Your task to perform on an android device: turn vacation reply on in the gmail app Image 0: 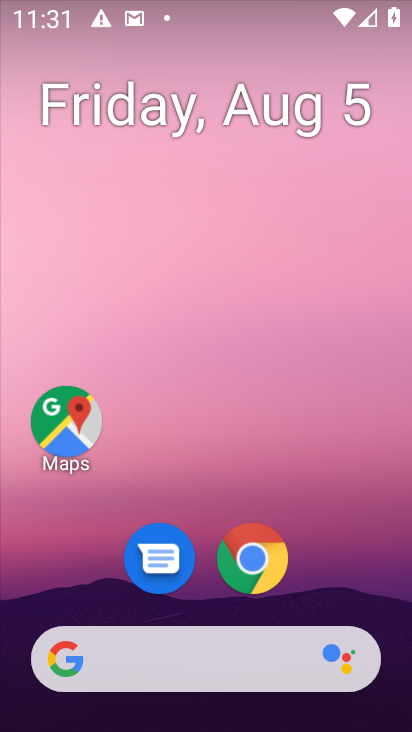
Step 0: press home button
Your task to perform on an android device: turn vacation reply on in the gmail app Image 1: 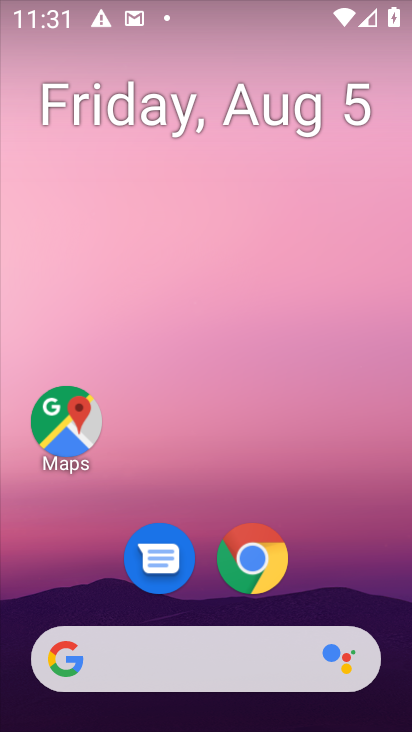
Step 1: drag from (344, 547) to (365, 203)
Your task to perform on an android device: turn vacation reply on in the gmail app Image 2: 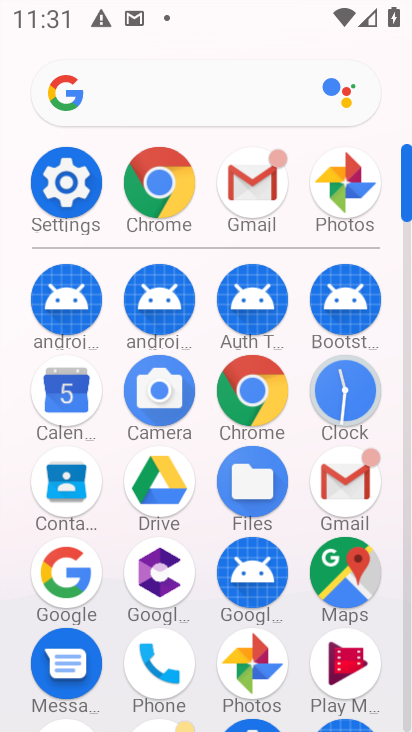
Step 2: click (335, 488)
Your task to perform on an android device: turn vacation reply on in the gmail app Image 3: 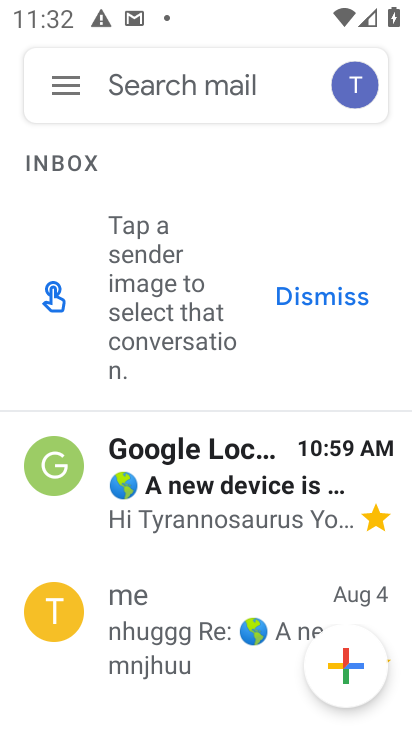
Step 3: click (72, 83)
Your task to perform on an android device: turn vacation reply on in the gmail app Image 4: 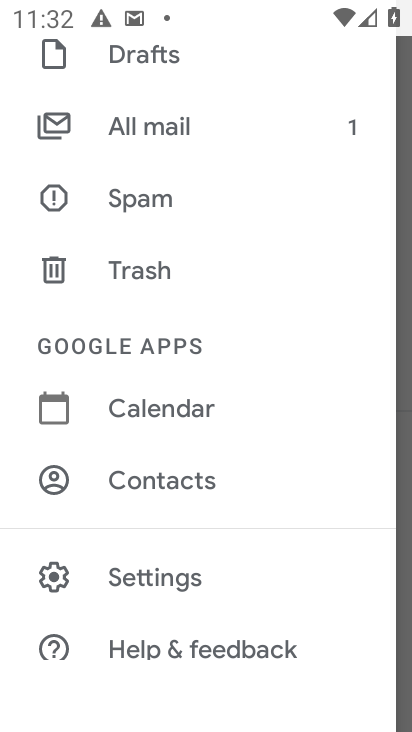
Step 4: click (192, 587)
Your task to perform on an android device: turn vacation reply on in the gmail app Image 5: 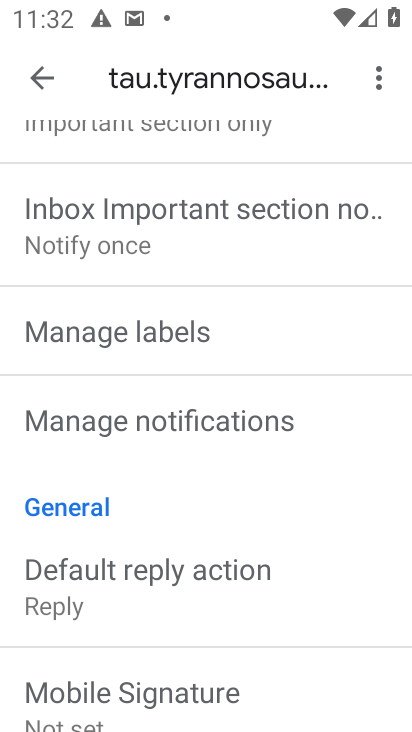
Step 5: drag from (291, 558) to (324, 416)
Your task to perform on an android device: turn vacation reply on in the gmail app Image 6: 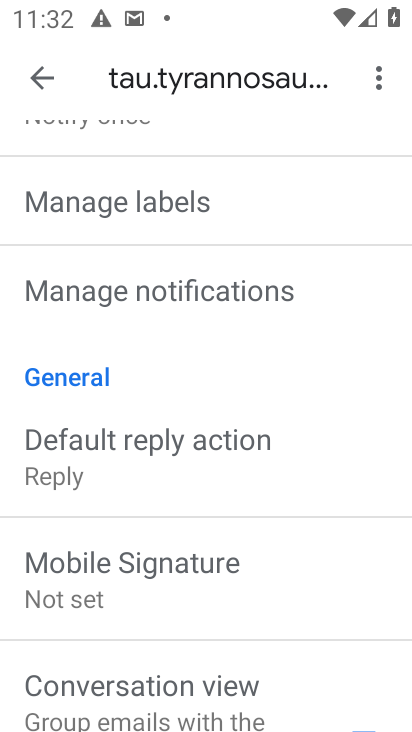
Step 6: drag from (333, 475) to (338, 368)
Your task to perform on an android device: turn vacation reply on in the gmail app Image 7: 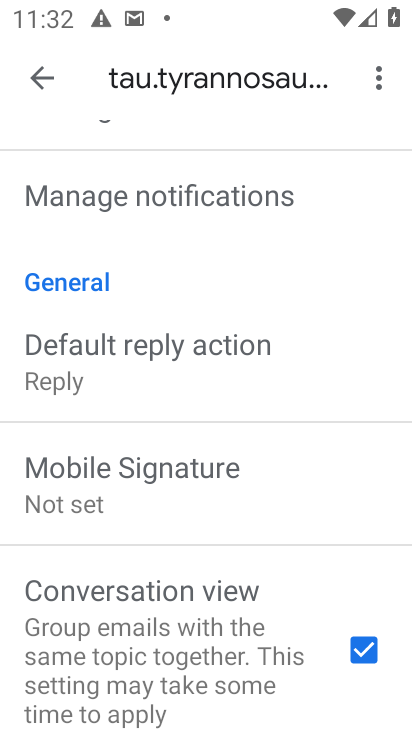
Step 7: drag from (303, 517) to (321, 366)
Your task to perform on an android device: turn vacation reply on in the gmail app Image 8: 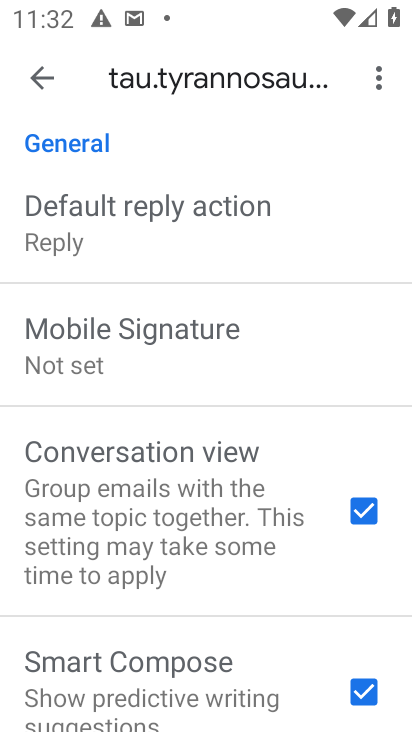
Step 8: drag from (291, 556) to (299, 404)
Your task to perform on an android device: turn vacation reply on in the gmail app Image 9: 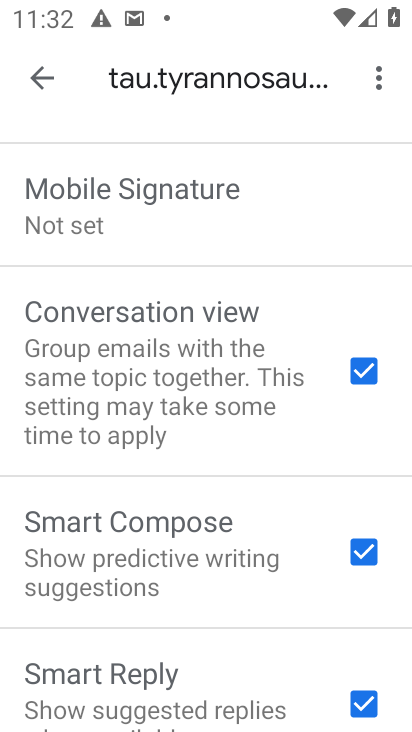
Step 9: drag from (279, 583) to (290, 474)
Your task to perform on an android device: turn vacation reply on in the gmail app Image 10: 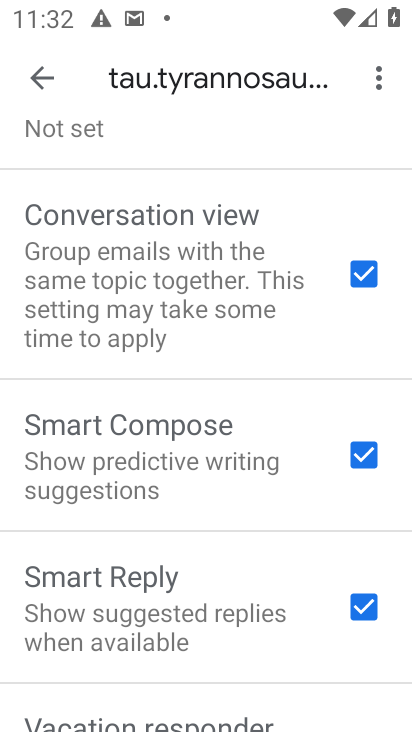
Step 10: drag from (284, 605) to (291, 435)
Your task to perform on an android device: turn vacation reply on in the gmail app Image 11: 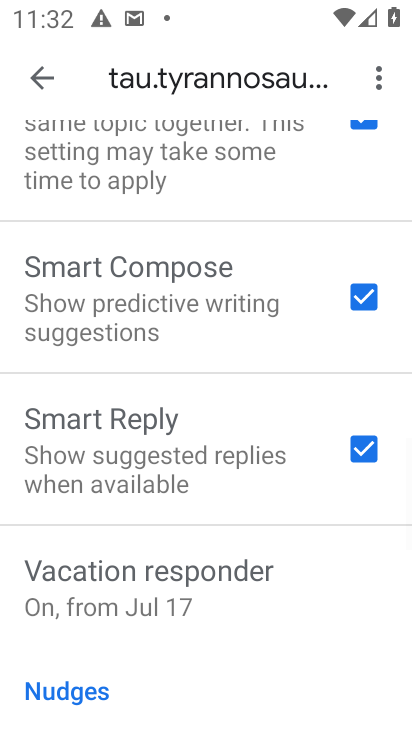
Step 11: drag from (296, 610) to (305, 448)
Your task to perform on an android device: turn vacation reply on in the gmail app Image 12: 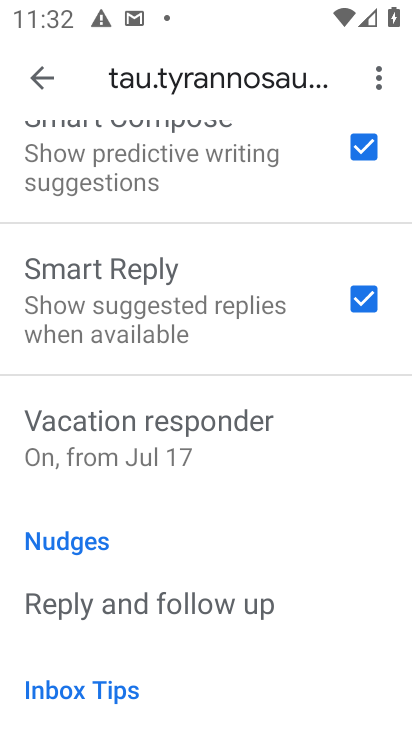
Step 12: click (244, 434)
Your task to perform on an android device: turn vacation reply on in the gmail app Image 13: 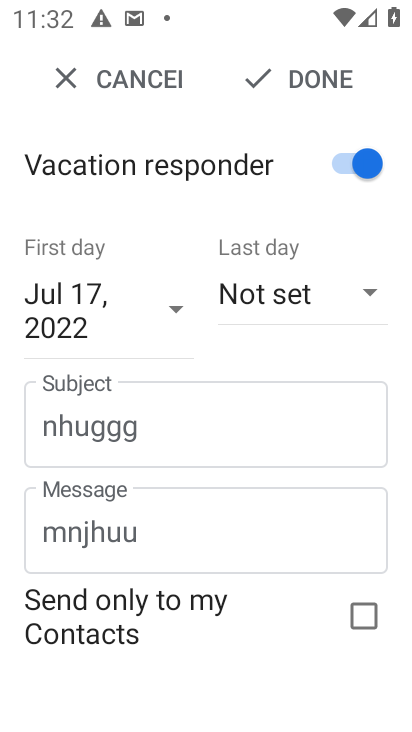
Step 13: task complete